Your task to perform on an android device: set an alarm Image 0: 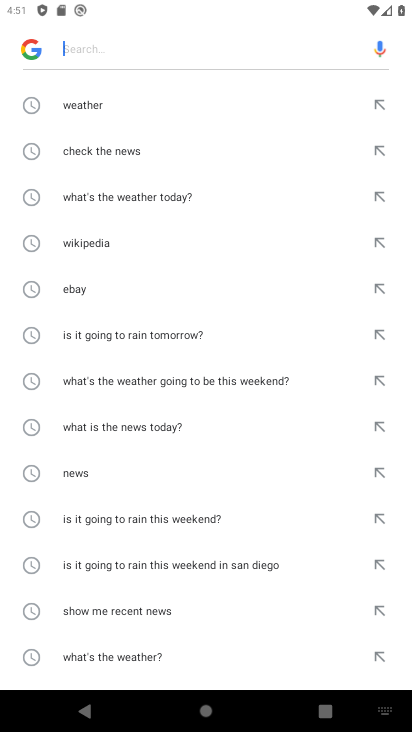
Step 0: press home button
Your task to perform on an android device: set an alarm Image 1: 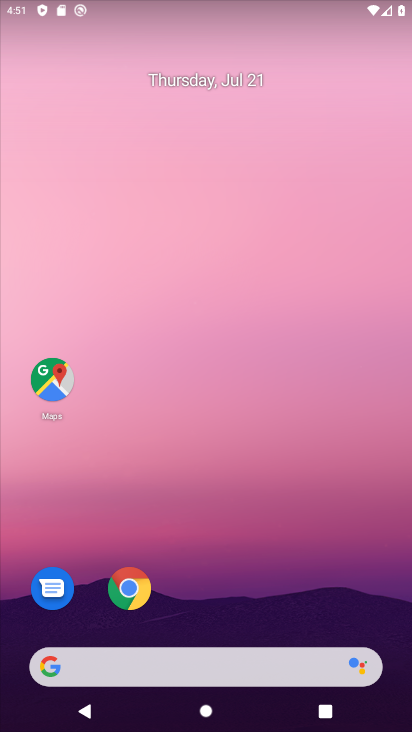
Step 1: drag from (292, 608) to (238, 153)
Your task to perform on an android device: set an alarm Image 2: 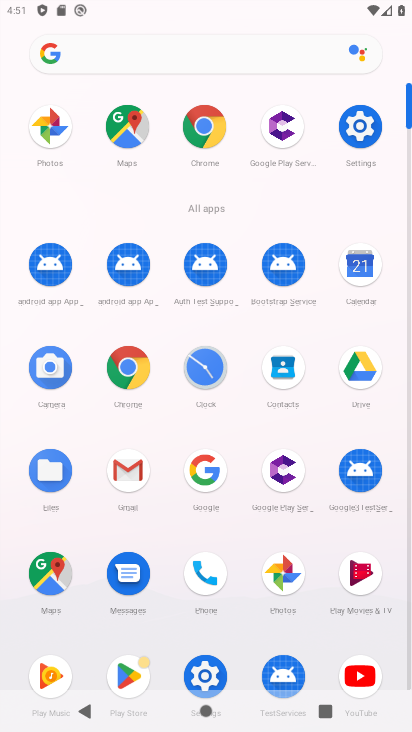
Step 2: click (207, 370)
Your task to perform on an android device: set an alarm Image 3: 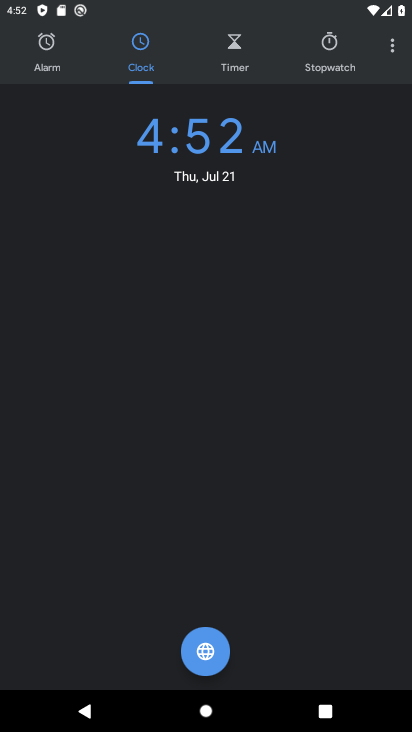
Step 3: click (46, 52)
Your task to perform on an android device: set an alarm Image 4: 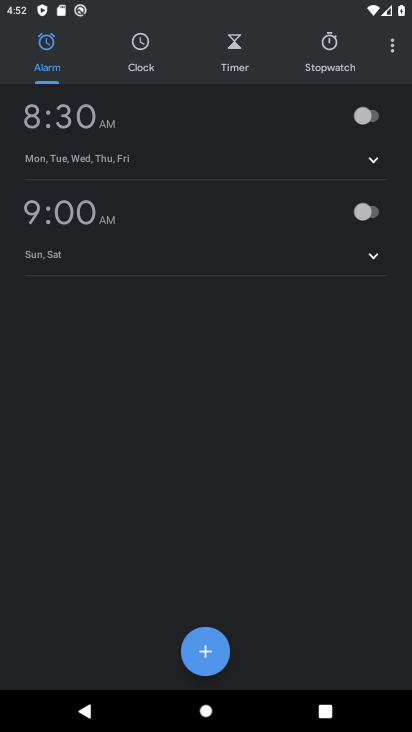
Step 4: click (210, 646)
Your task to perform on an android device: set an alarm Image 5: 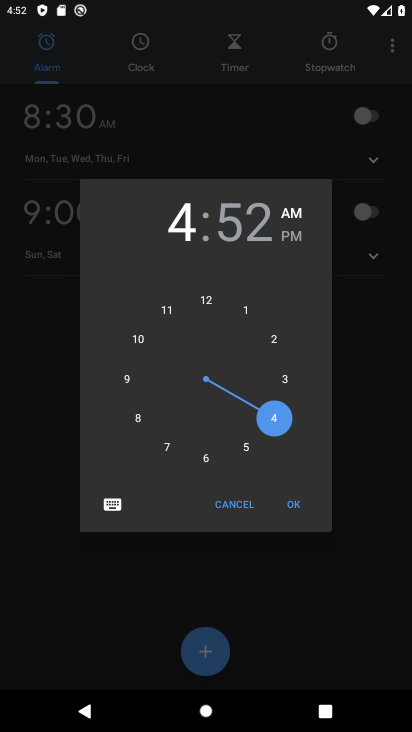
Step 5: click (300, 513)
Your task to perform on an android device: set an alarm Image 6: 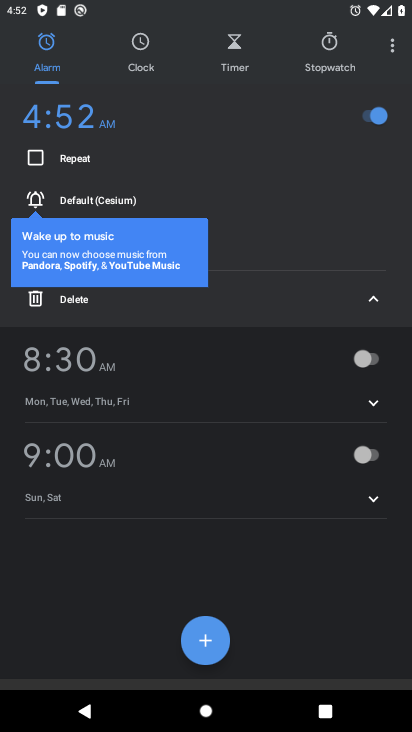
Step 6: task complete